Your task to perform on an android device: Go to ESPN.com Image 0: 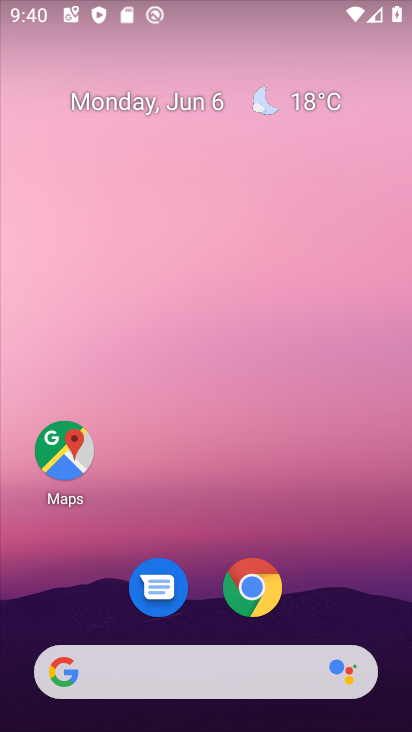
Step 0: click (236, 594)
Your task to perform on an android device: Go to ESPN.com Image 1: 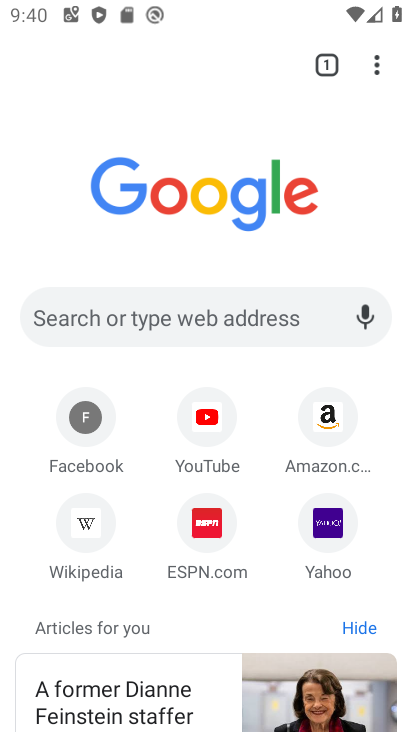
Step 1: click (197, 536)
Your task to perform on an android device: Go to ESPN.com Image 2: 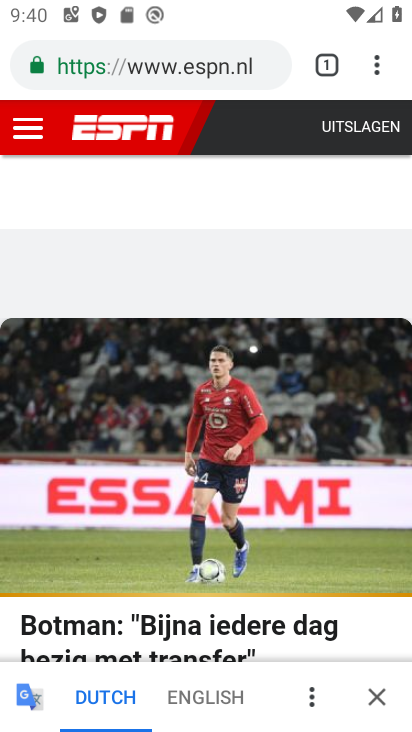
Step 2: task complete